Your task to perform on an android device: toggle data saver in the chrome app Image 0: 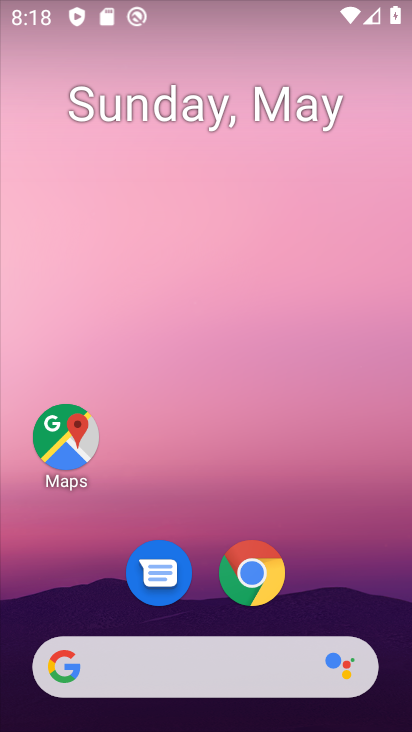
Step 0: click (270, 575)
Your task to perform on an android device: toggle data saver in the chrome app Image 1: 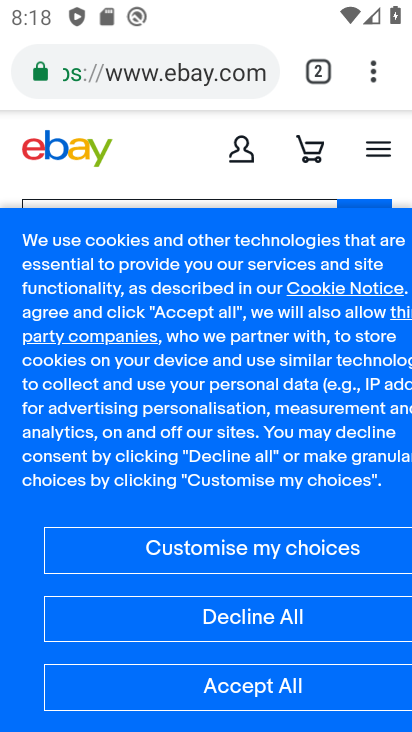
Step 1: click (379, 73)
Your task to perform on an android device: toggle data saver in the chrome app Image 2: 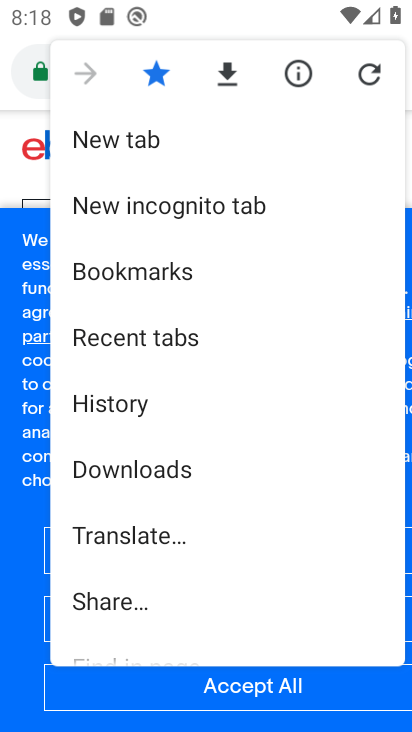
Step 2: drag from (209, 606) to (187, 189)
Your task to perform on an android device: toggle data saver in the chrome app Image 3: 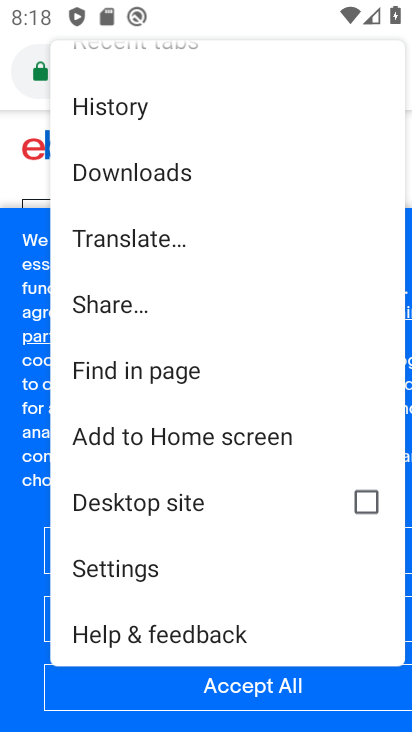
Step 3: click (157, 563)
Your task to perform on an android device: toggle data saver in the chrome app Image 4: 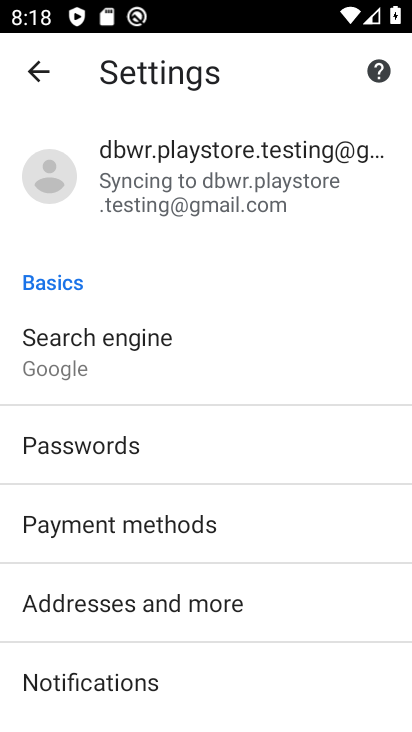
Step 4: drag from (205, 686) to (194, 292)
Your task to perform on an android device: toggle data saver in the chrome app Image 5: 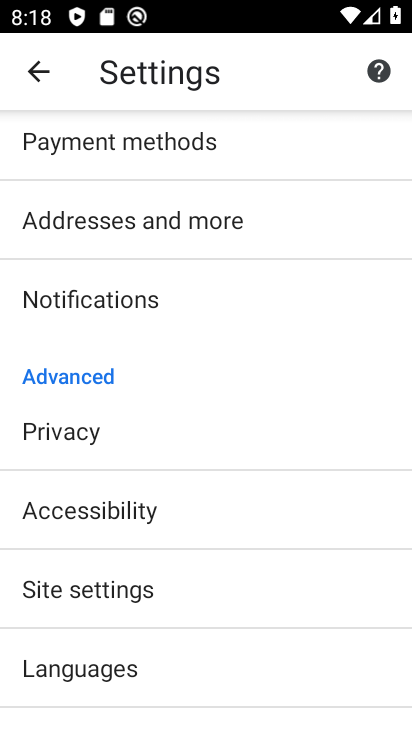
Step 5: drag from (173, 640) to (157, 375)
Your task to perform on an android device: toggle data saver in the chrome app Image 6: 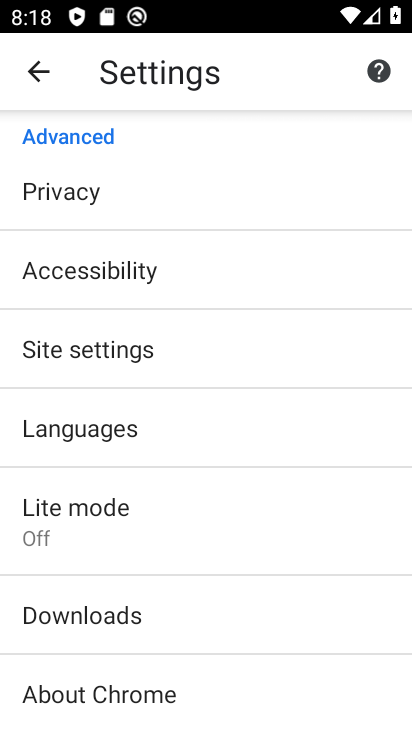
Step 6: click (153, 477)
Your task to perform on an android device: toggle data saver in the chrome app Image 7: 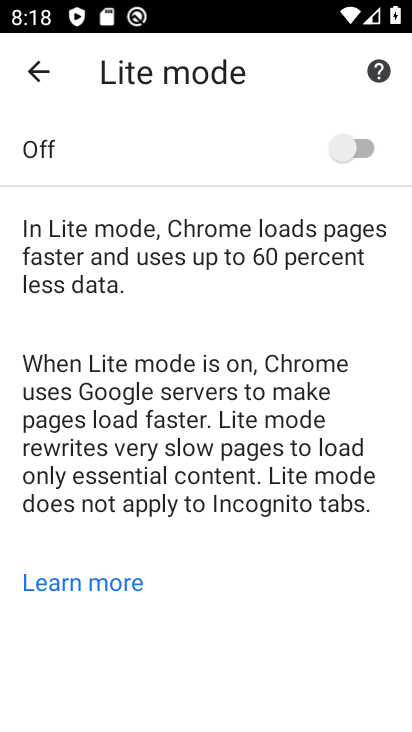
Step 7: click (363, 143)
Your task to perform on an android device: toggle data saver in the chrome app Image 8: 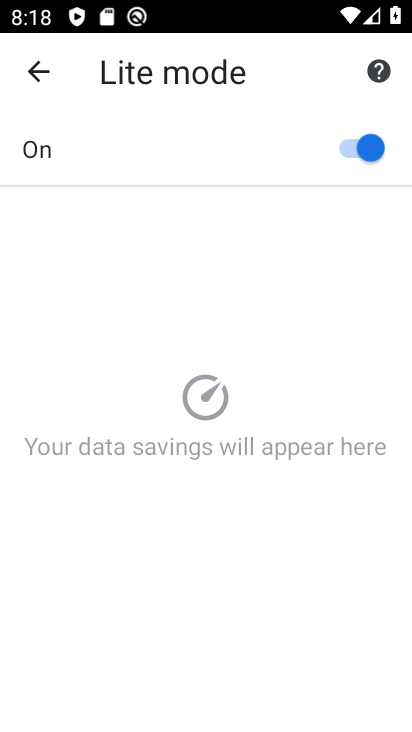
Step 8: task complete